Your task to perform on an android device: turn on javascript in the chrome app Image 0: 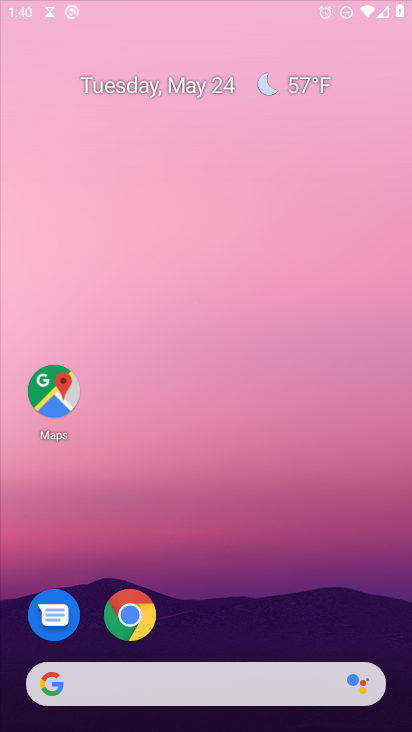
Step 0: click (54, 382)
Your task to perform on an android device: turn on javascript in the chrome app Image 1: 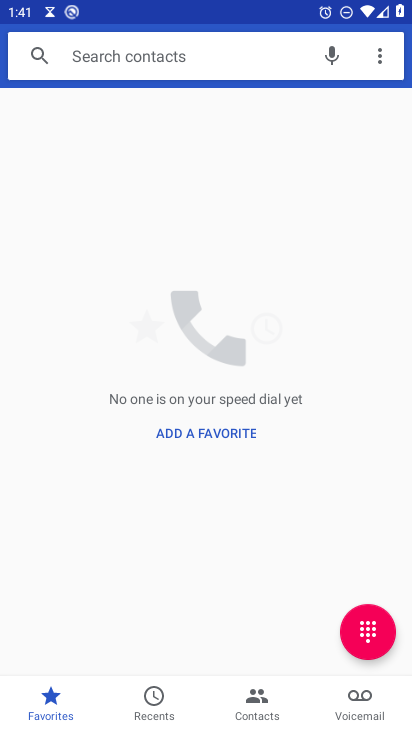
Step 1: press home button
Your task to perform on an android device: turn on javascript in the chrome app Image 2: 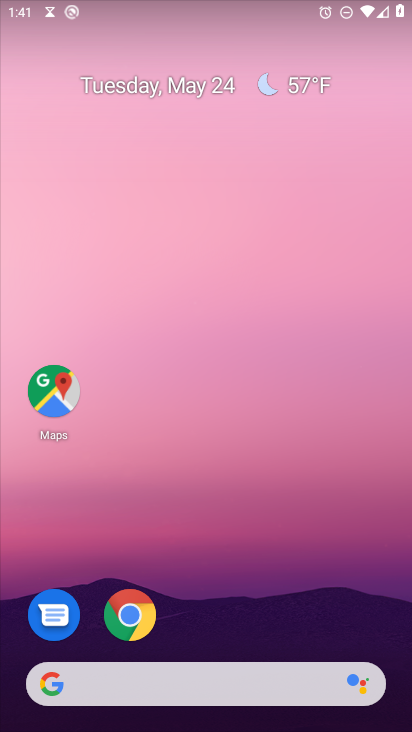
Step 2: click (122, 606)
Your task to perform on an android device: turn on javascript in the chrome app Image 3: 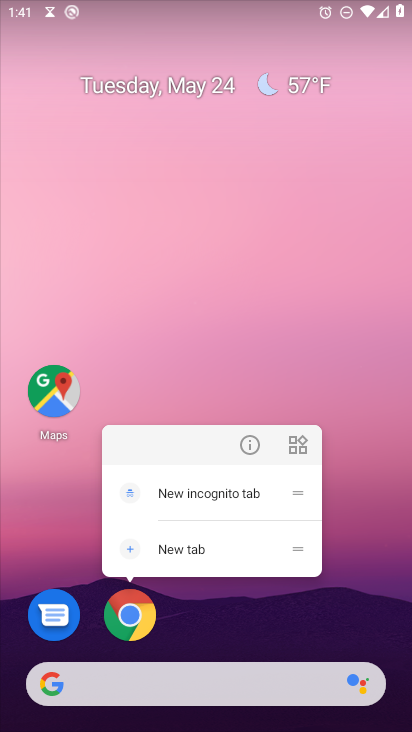
Step 3: click (131, 616)
Your task to perform on an android device: turn on javascript in the chrome app Image 4: 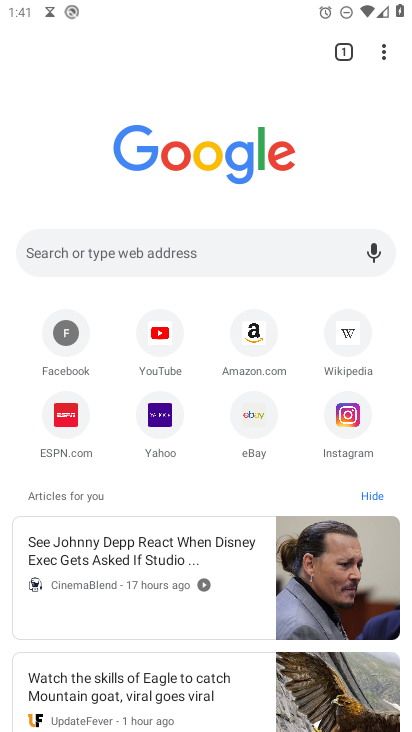
Step 4: click (386, 51)
Your task to perform on an android device: turn on javascript in the chrome app Image 5: 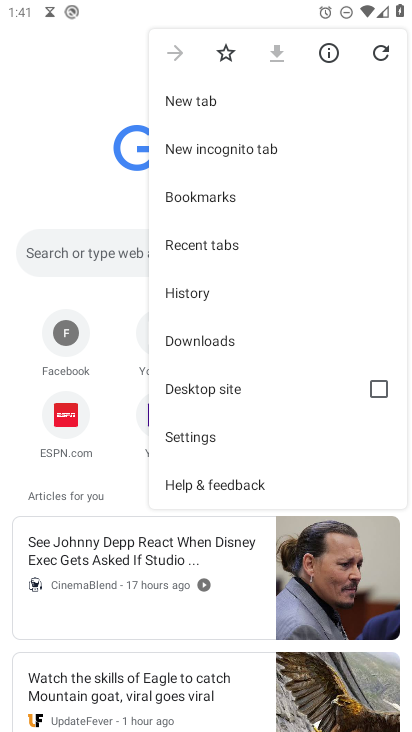
Step 5: click (167, 443)
Your task to perform on an android device: turn on javascript in the chrome app Image 6: 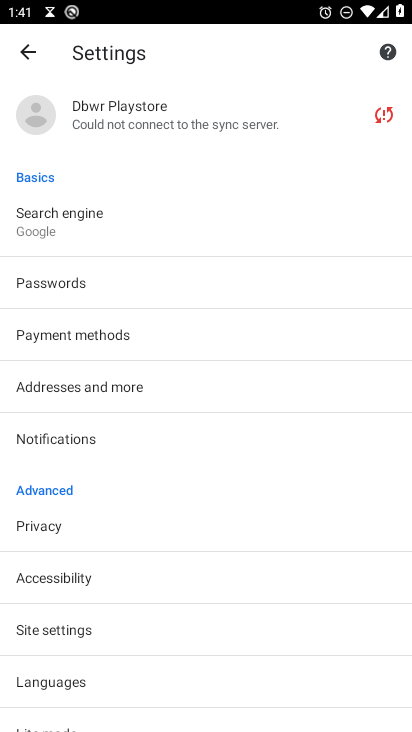
Step 6: click (79, 626)
Your task to perform on an android device: turn on javascript in the chrome app Image 7: 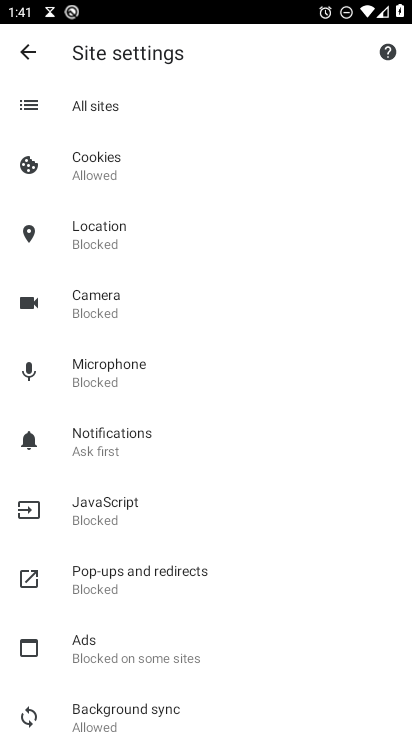
Step 7: click (102, 521)
Your task to perform on an android device: turn on javascript in the chrome app Image 8: 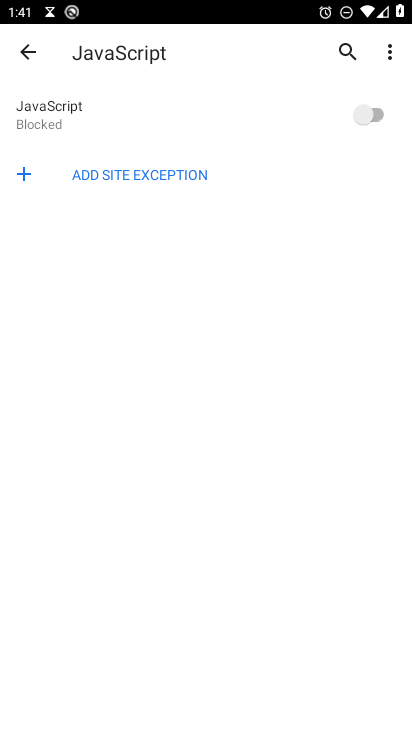
Step 8: click (369, 117)
Your task to perform on an android device: turn on javascript in the chrome app Image 9: 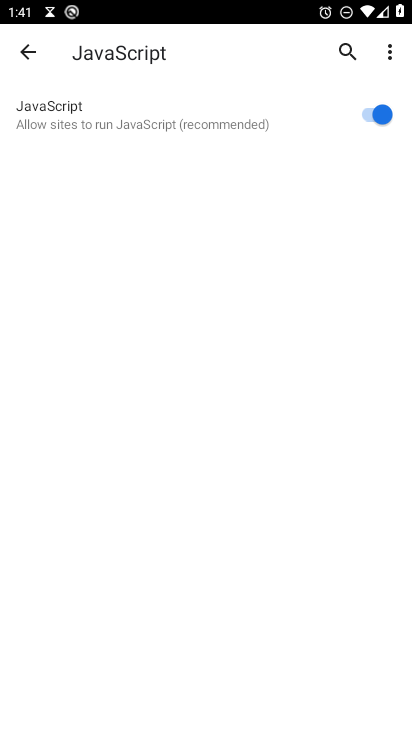
Step 9: task complete